Your task to perform on an android device: Go to Yahoo.com Image 0: 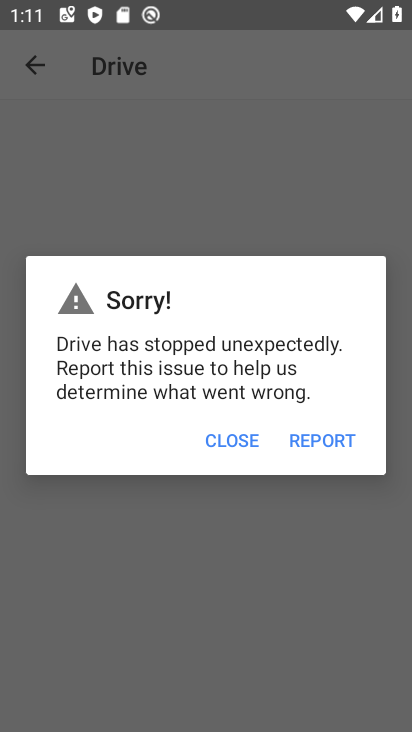
Step 0: press home button
Your task to perform on an android device: Go to Yahoo.com Image 1: 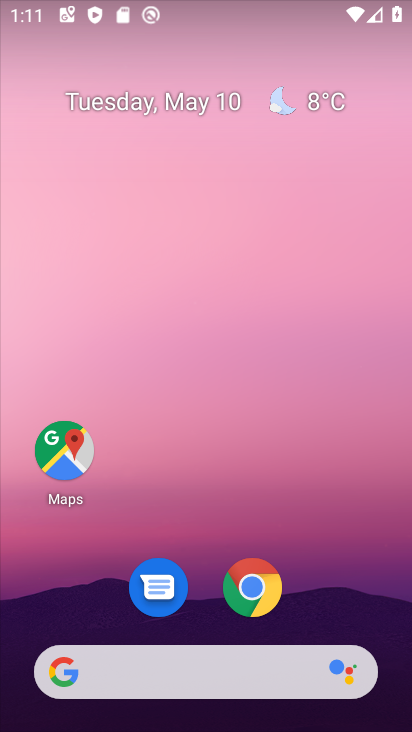
Step 1: click (241, 581)
Your task to perform on an android device: Go to Yahoo.com Image 2: 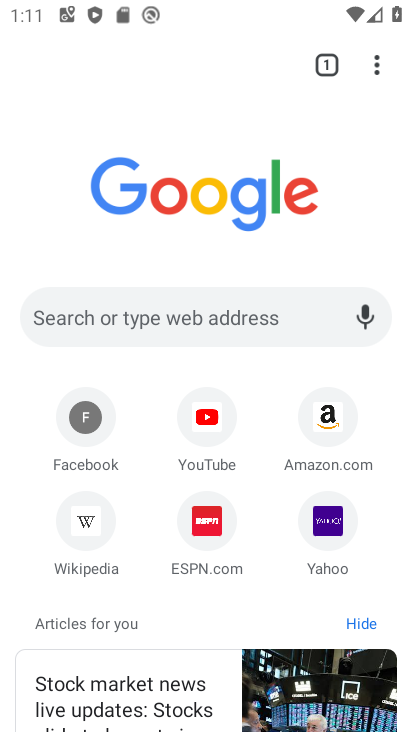
Step 2: click (322, 503)
Your task to perform on an android device: Go to Yahoo.com Image 3: 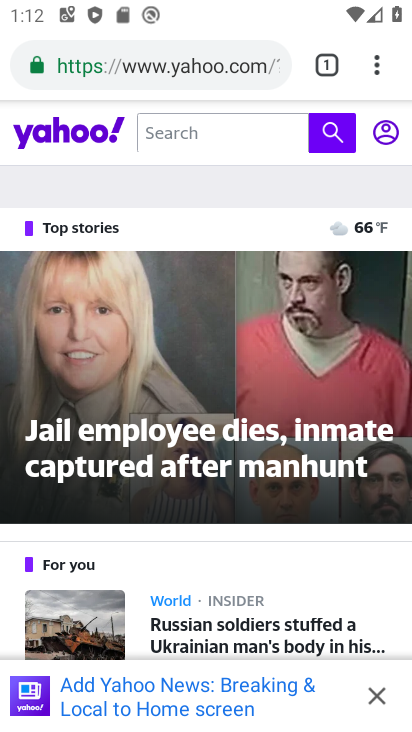
Step 3: task complete